Your task to perform on an android device: Is it going to rain today? Image 0: 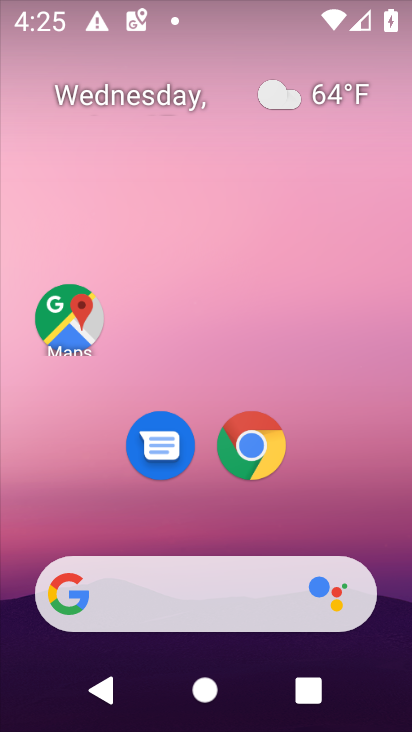
Step 0: click (348, 90)
Your task to perform on an android device: Is it going to rain today? Image 1: 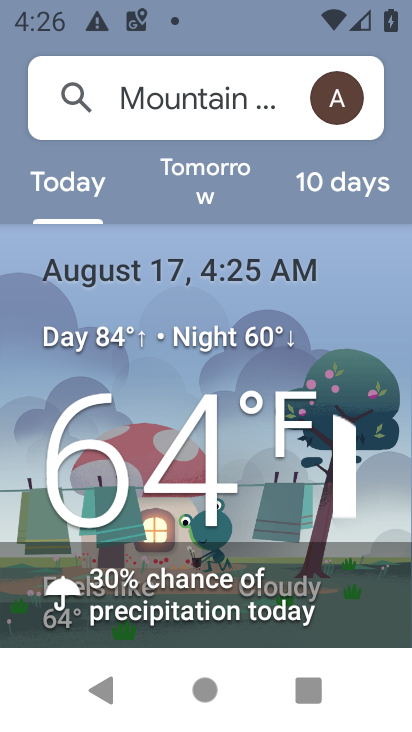
Step 1: task complete